Your task to perform on an android device: toggle wifi Image 0: 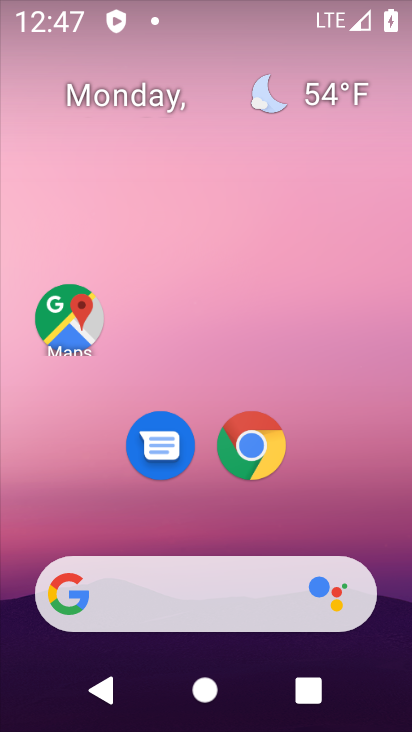
Step 0: drag from (377, 534) to (373, 92)
Your task to perform on an android device: toggle wifi Image 1: 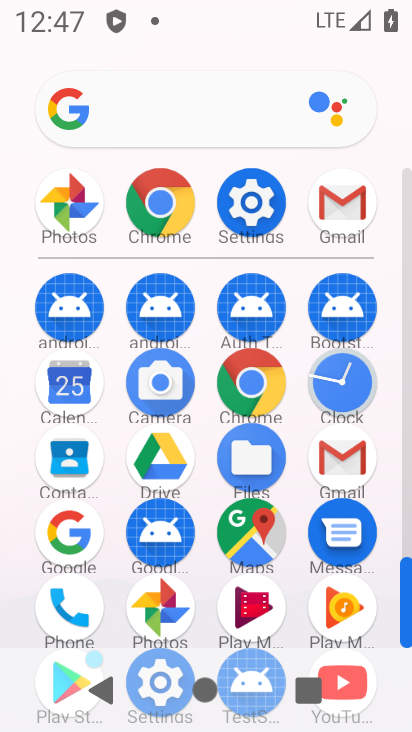
Step 1: click (246, 193)
Your task to perform on an android device: toggle wifi Image 2: 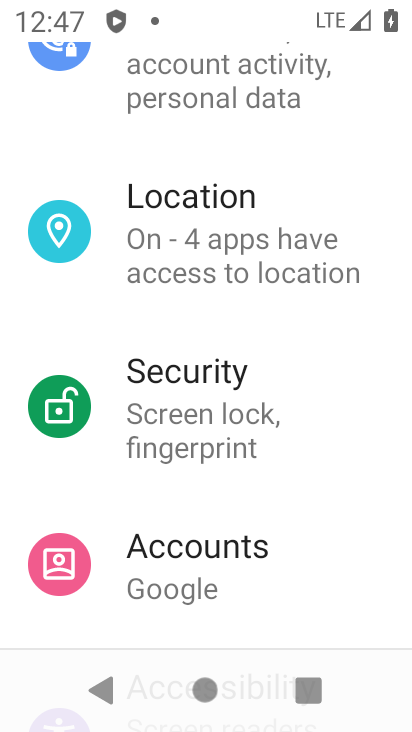
Step 2: drag from (283, 179) to (279, 554)
Your task to perform on an android device: toggle wifi Image 3: 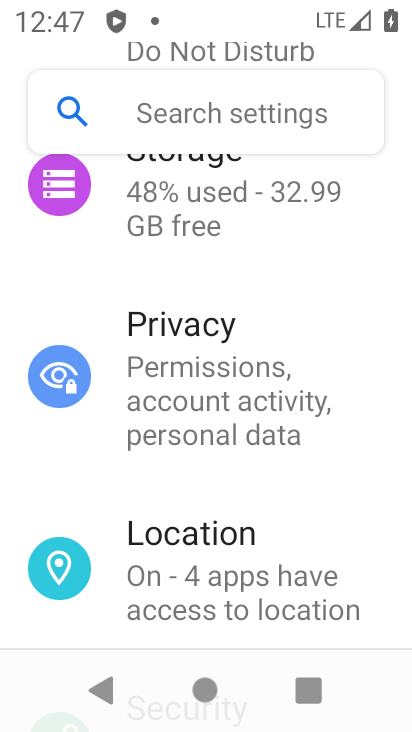
Step 3: drag from (291, 287) to (306, 533)
Your task to perform on an android device: toggle wifi Image 4: 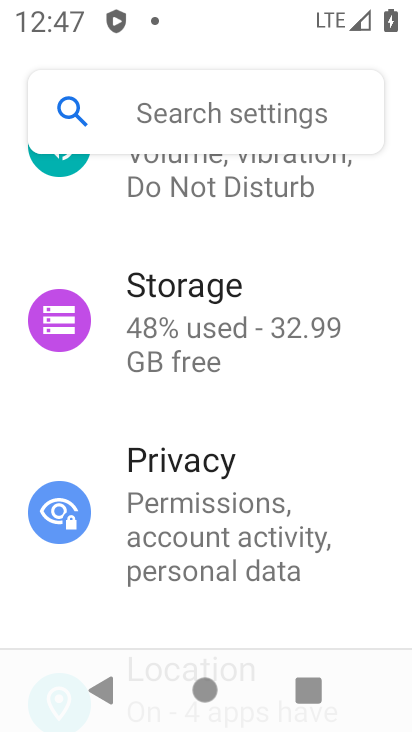
Step 4: drag from (307, 220) to (342, 583)
Your task to perform on an android device: toggle wifi Image 5: 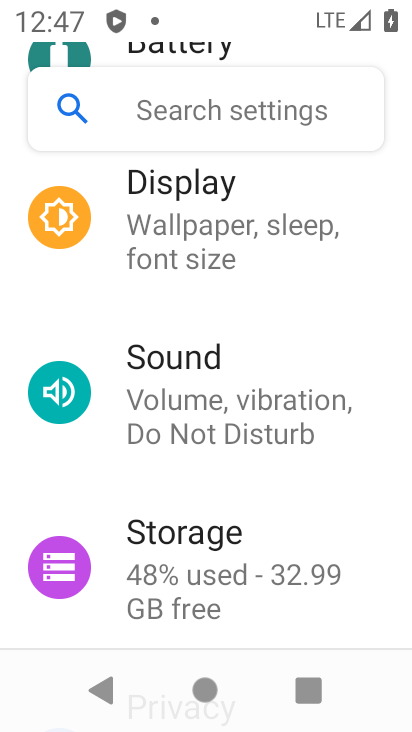
Step 5: drag from (316, 184) to (379, 606)
Your task to perform on an android device: toggle wifi Image 6: 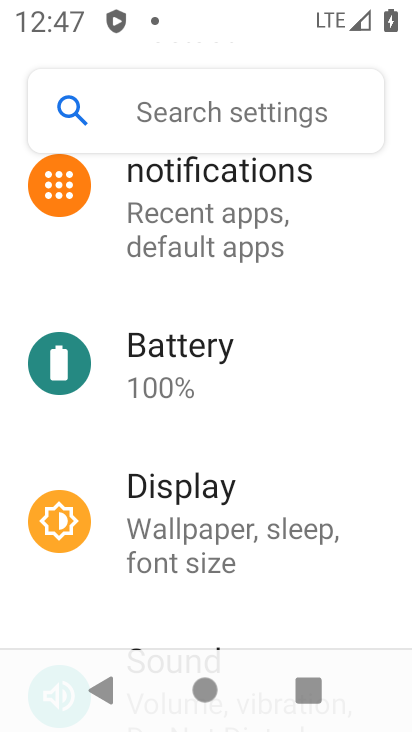
Step 6: drag from (310, 241) to (372, 581)
Your task to perform on an android device: toggle wifi Image 7: 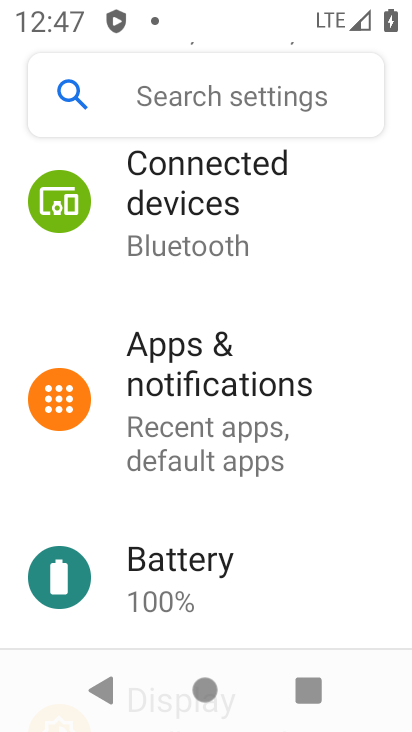
Step 7: drag from (292, 293) to (321, 611)
Your task to perform on an android device: toggle wifi Image 8: 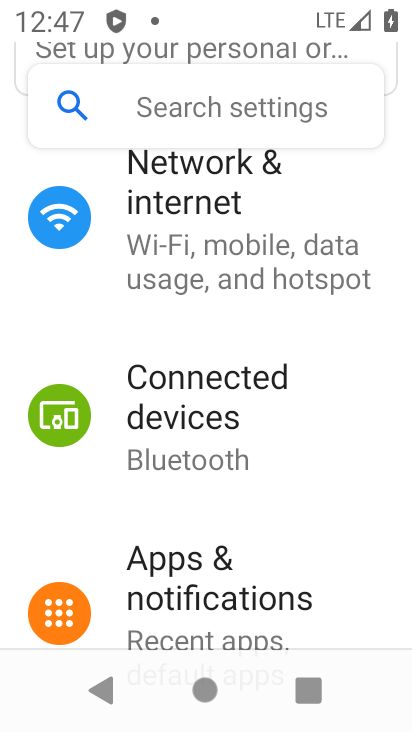
Step 8: drag from (302, 236) to (337, 592)
Your task to perform on an android device: toggle wifi Image 9: 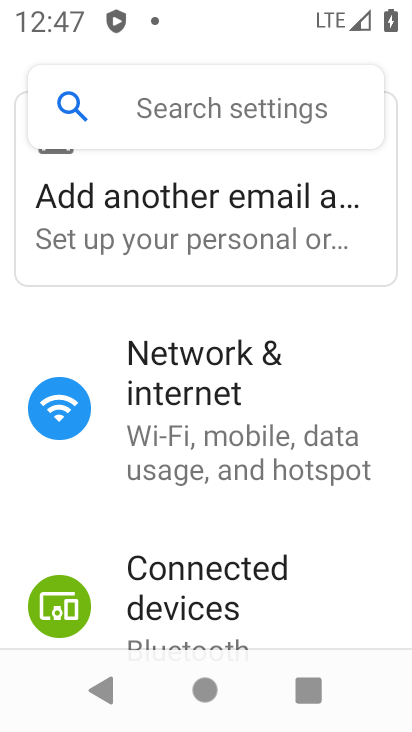
Step 9: click (258, 410)
Your task to perform on an android device: toggle wifi Image 10: 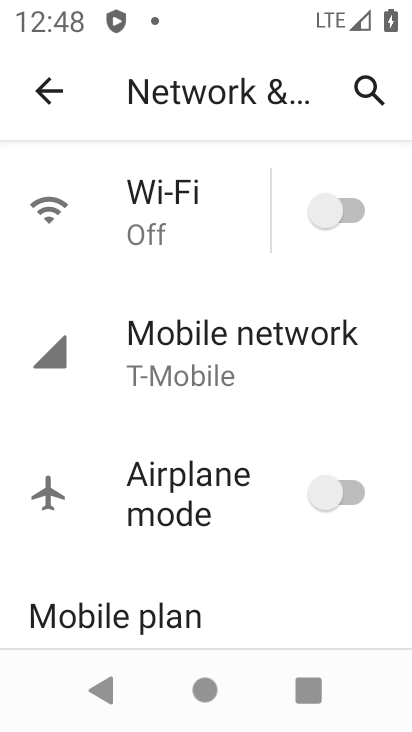
Step 10: click (353, 213)
Your task to perform on an android device: toggle wifi Image 11: 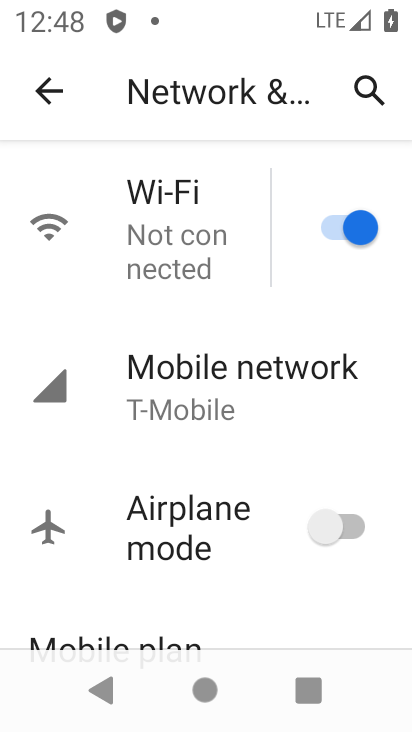
Step 11: task complete